Your task to perform on an android device: turn off airplane mode Image 0: 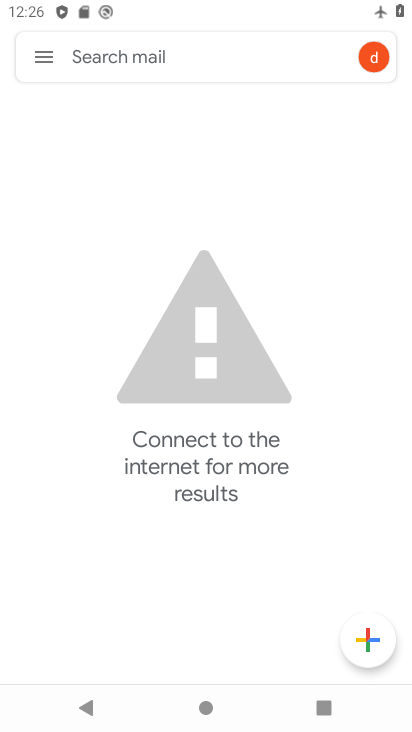
Step 0: press home button
Your task to perform on an android device: turn off airplane mode Image 1: 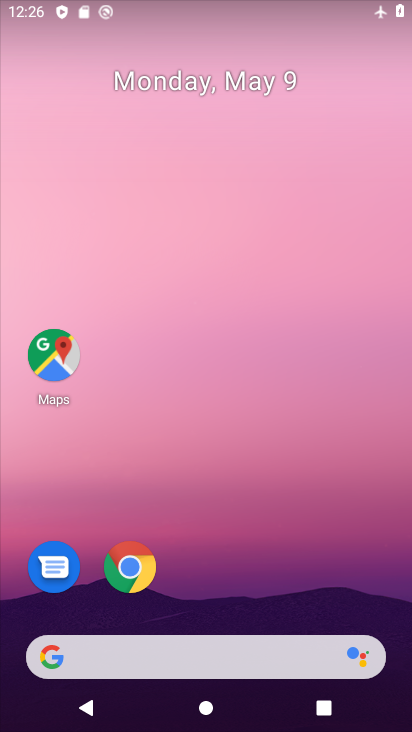
Step 1: drag from (203, 606) to (268, 46)
Your task to perform on an android device: turn off airplane mode Image 2: 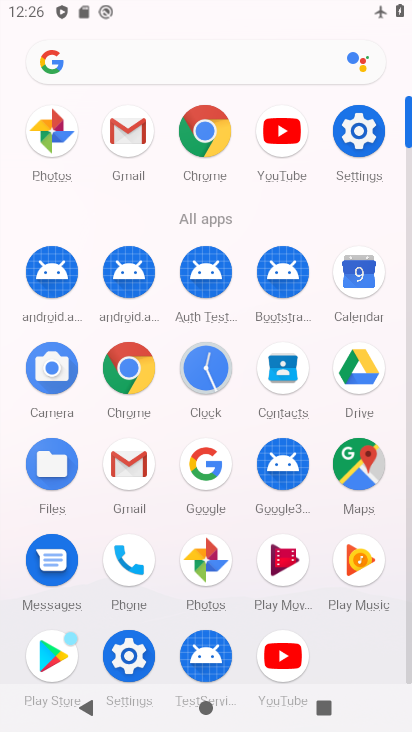
Step 2: click (360, 136)
Your task to perform on an android device: turn off airplane mode Image 3: 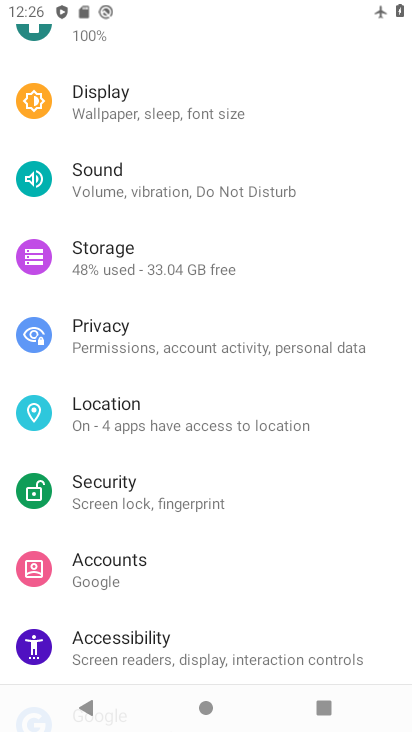
Step 3: drag from (273, 190) to (270, 484)
Your task to perform on an android device: turn off airplane mode Image 4: 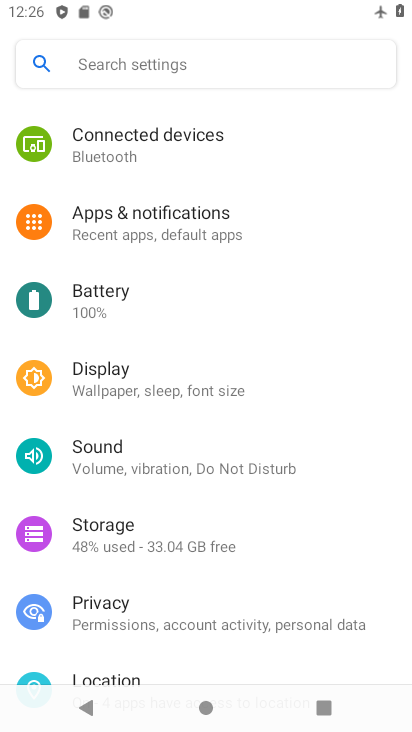
Step 4: drag from (252, 238) to (244, 588)
Your task to perform on an android device: turn off airplane mode Image 5: 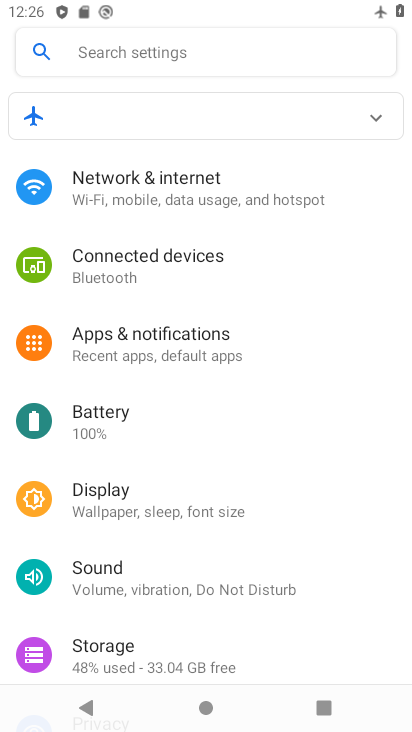
Step 5: click (232, 214)
Your task to perform on an android device: turn off airplane mode Image 6: 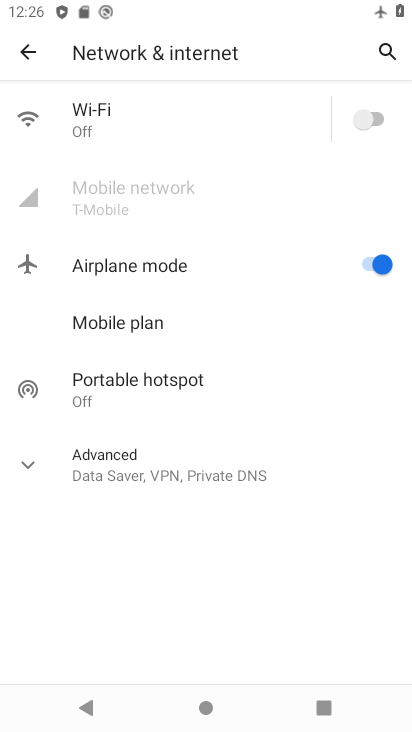
Step 6: click (371, 267)
Your task to perform on an android device: turn off airplane mode Image 7: 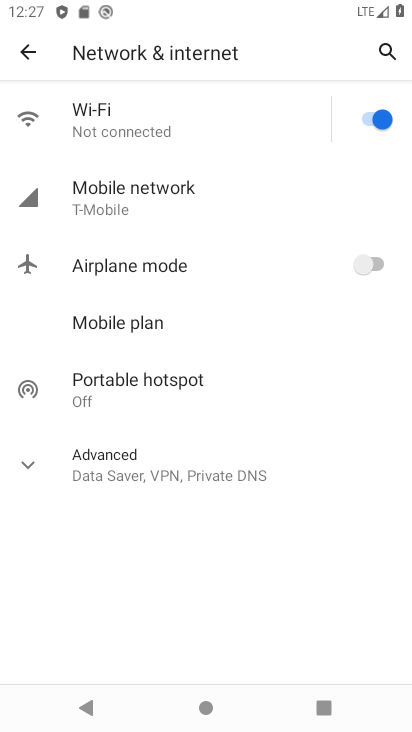
Step 7: task complete